Your task to perform on an android device: Open the phone app and click the voicemail tab. Image 0: 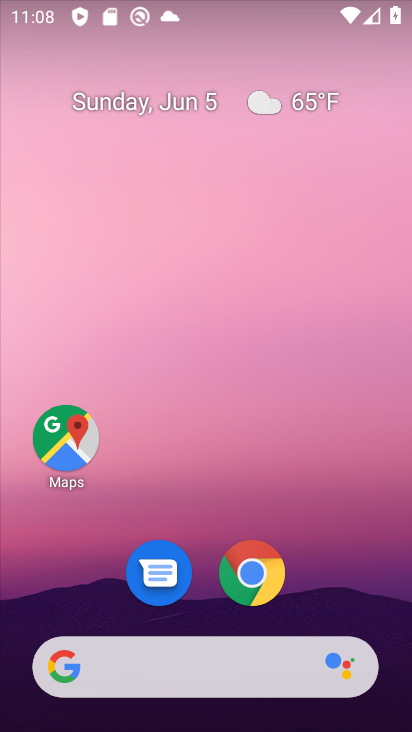
Step 0: press home button
Your task to perform on an android device: Open the phone app and click the voicemail tab. Image 1: 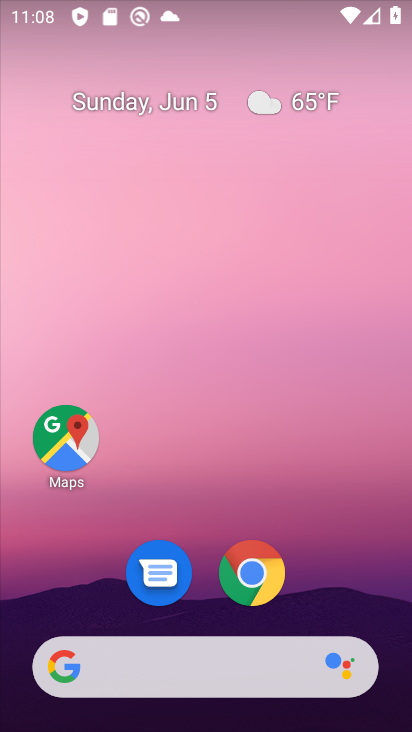
Step 1: drag from (207, 604) to (210, 166)
Your task to perform on an android device: Open the phone app and click the voicemail tab. Image 2: 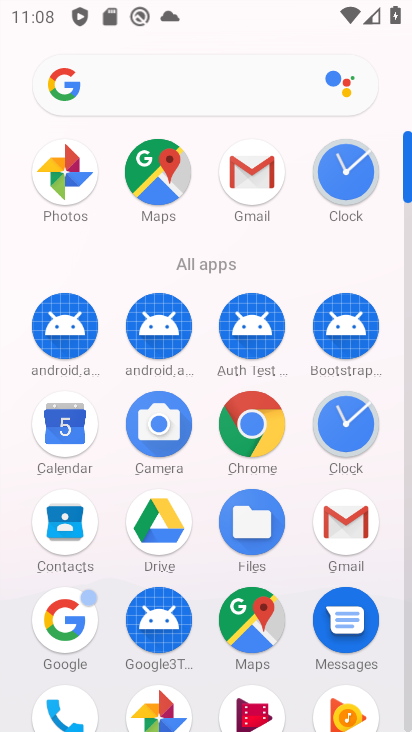
Step 2: click (65, 703)
Your task to perform on an android device: Open the phone app and click the voicemail tab. Image 3: 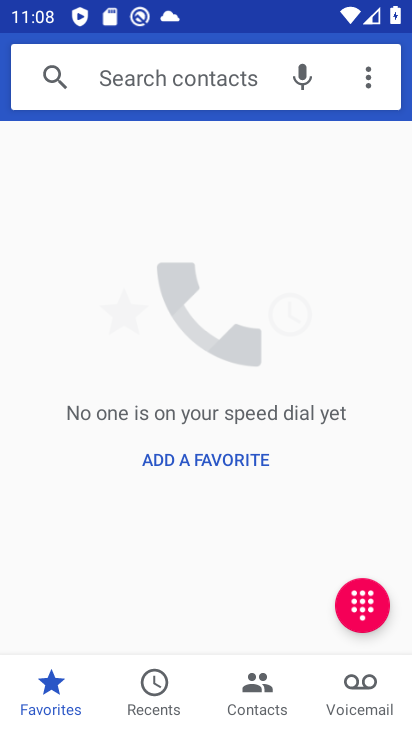
Step 3: click (357, 677)
Your task to perform on an android device: Open the phone app and click the voicemail tab. Image 4: 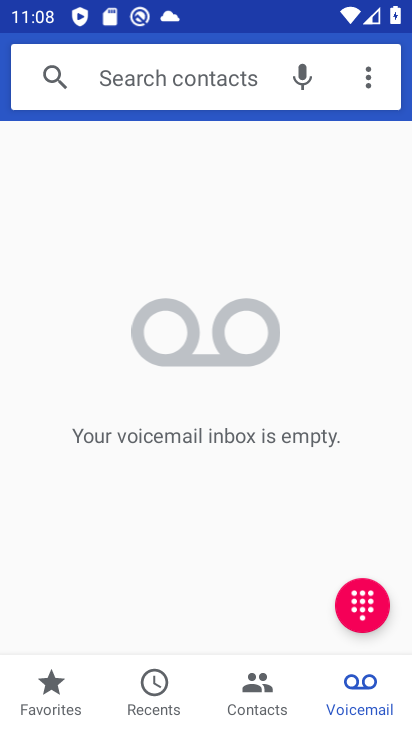
Step 4: task complete